Your task to perform on an android device: toggle airplane mode Image 0: 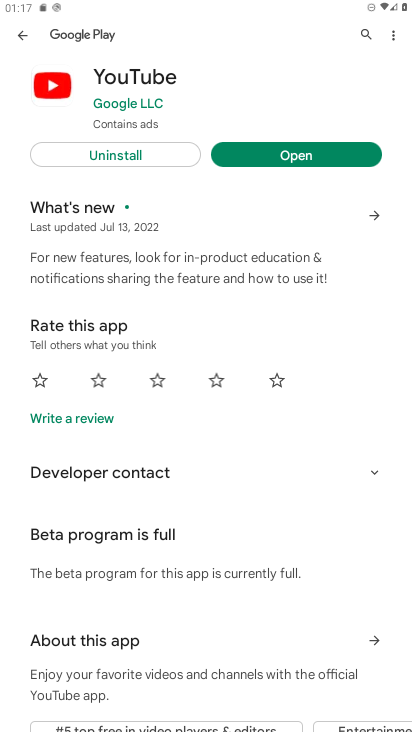
Step 0: press home button
Your task to perform on an android device: toggle airplane mode Image 1: 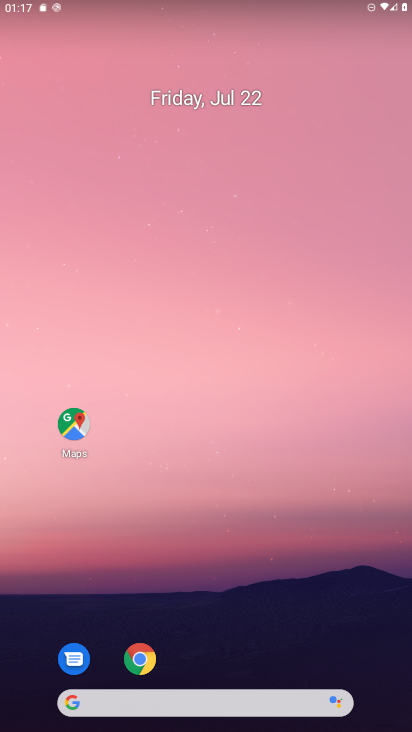
Step 1: drag from (212, 694) to (178, 51)
Your task to perform on an android device: toggle airplane mode Image 2: 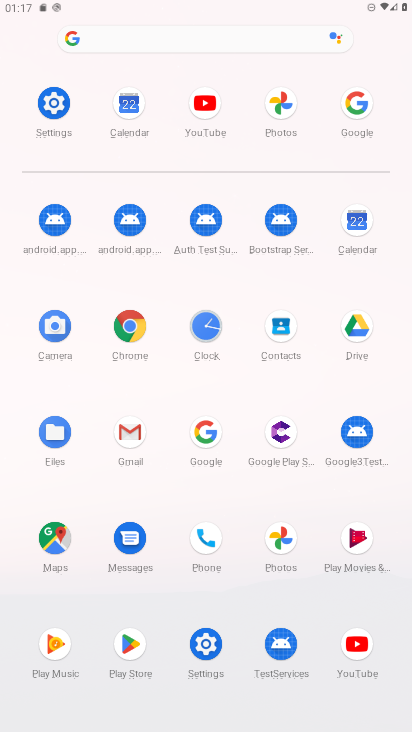
Step 2: click (55, 103)
Your task to perform on an android device: toggle airplane mode Image 3: 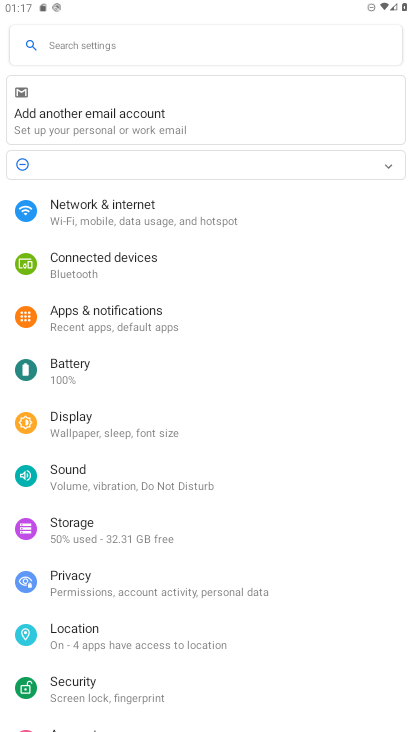
Step 3: click (110, 214)
Your task to perform on an android device: toggle airplane mode Image 4: 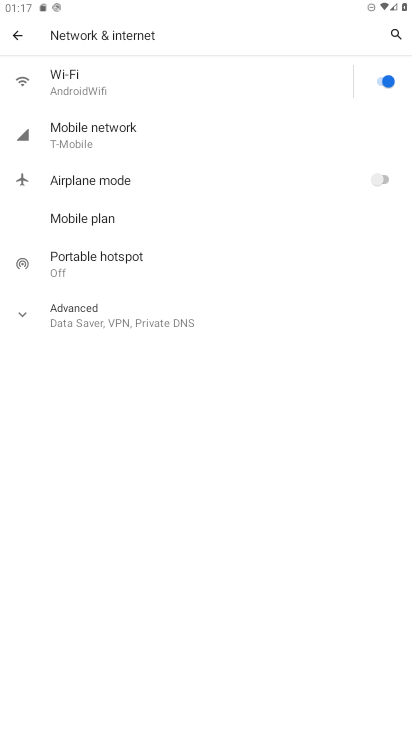
Step 4: click (379, 176)
Your task to perform on an android device: toggle airplane mode Image 5: 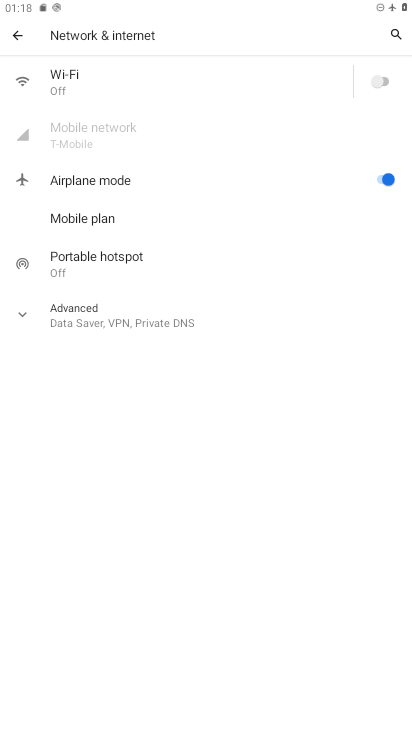
Step 5: task complete